Your task to perform on an android device: Go to network settings Image 0: 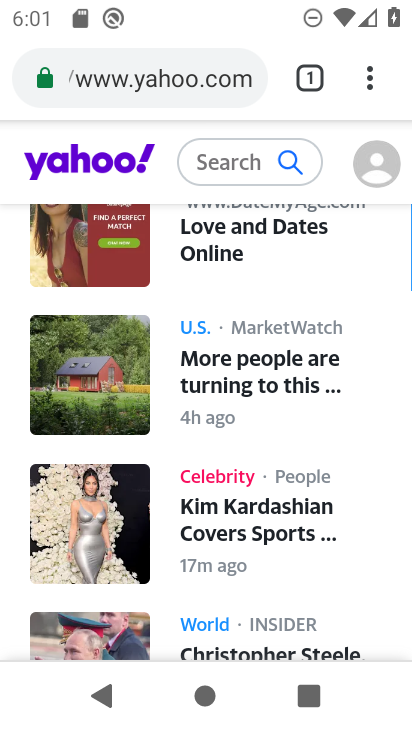
Step 0: press home button
Your task to perform on an android device: Go to network settings Image 1: 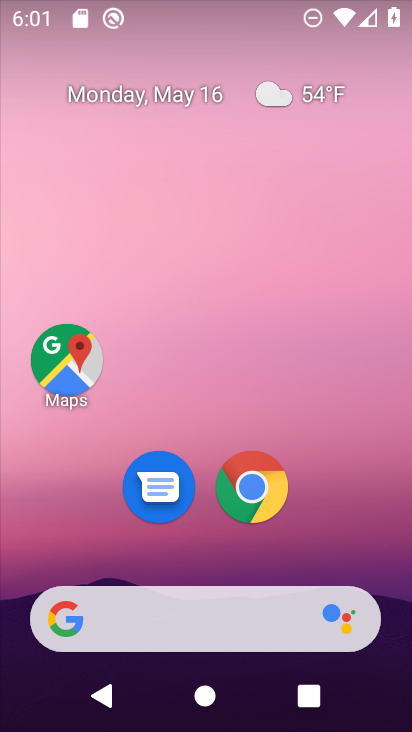
Step 1: drag from (185, 594) to (215, 163)
Your task to perform on an android device: Go to network settings Image 2: 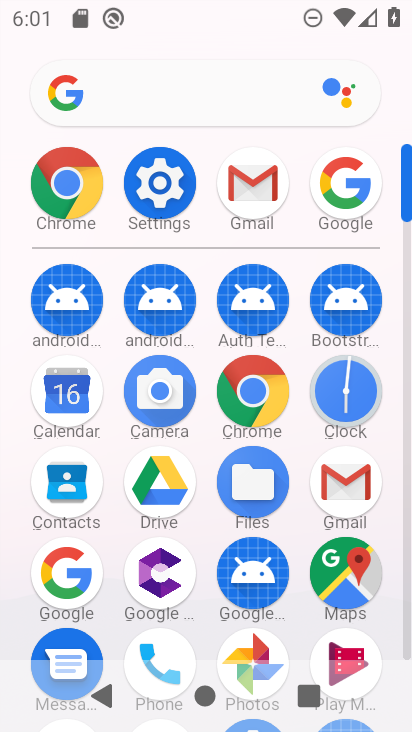
Step 2: click (166, 182)
Your task to perform on an android device: Go to network settings Image 3: 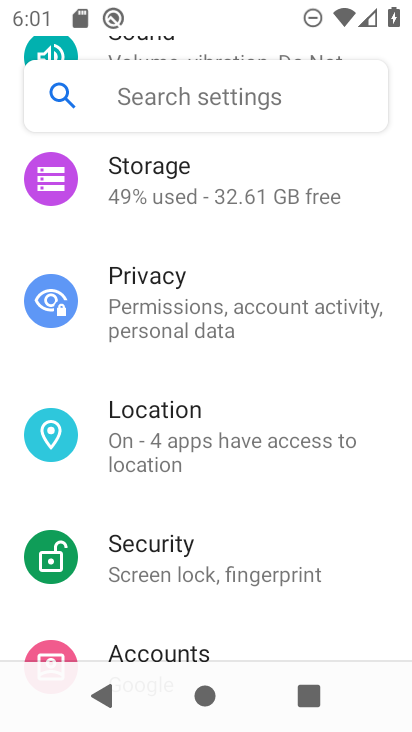
Step 3: drag from (193, 152) to (192, 560)
Your task to perform on an android device: Go to network settings Image 4: 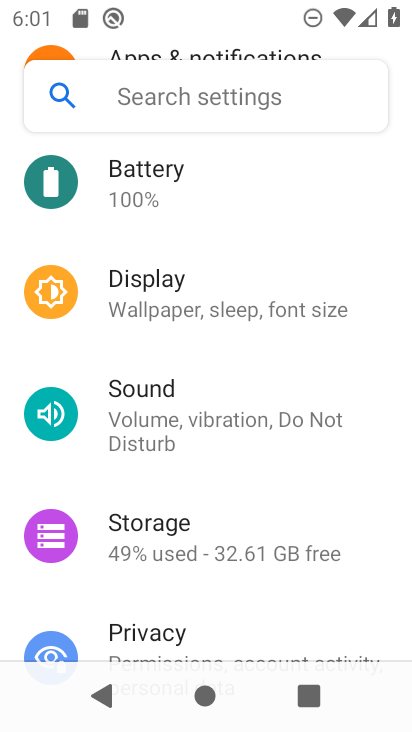
Step 4: drag from (227, 171) to (222, 524)
Your task to perform on an android device: Go to network settings Image 5: 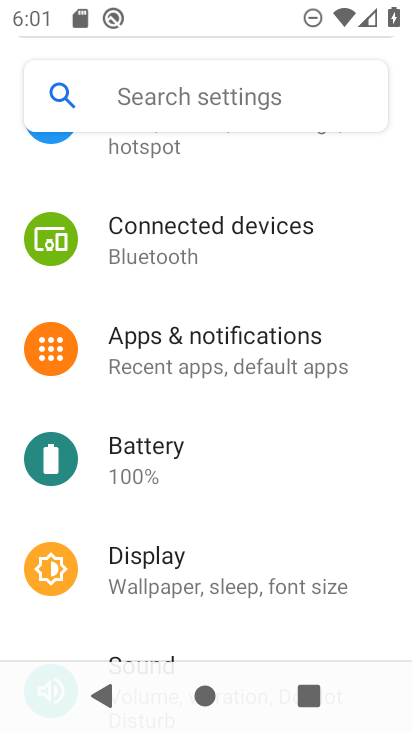
Step 5: drag from (213, 179) to (213, 500)
Your task to perform on an android device: Go to network settings Image 6: 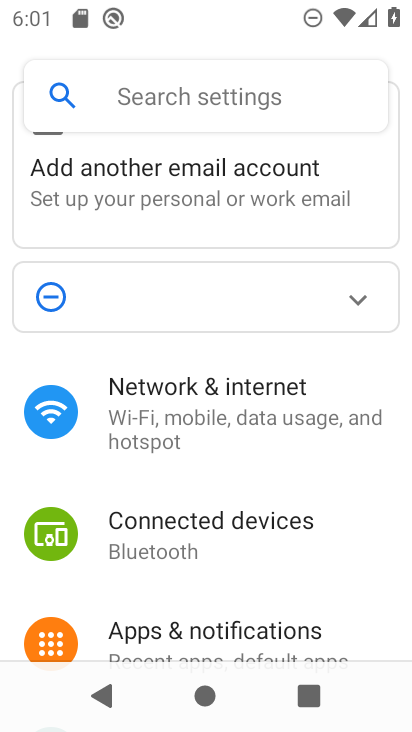
Step 6: click (194, 410)
Your task to perform on an android device: Go to network settings Image 7: 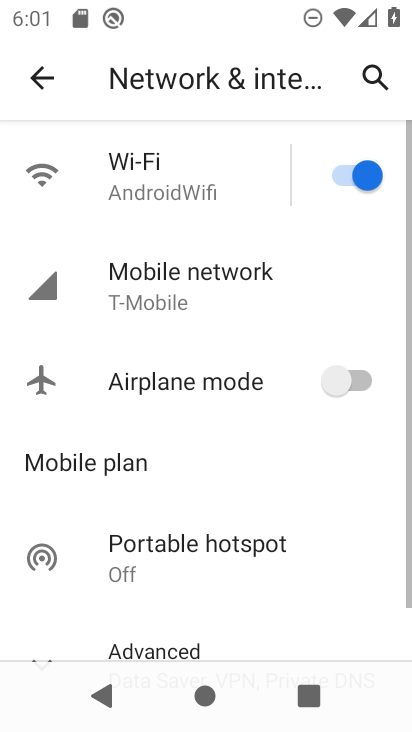
Step 7: drag from (218, 635) to (218, 321)
Your task to perform on an android device: Go to network settings Image 8: 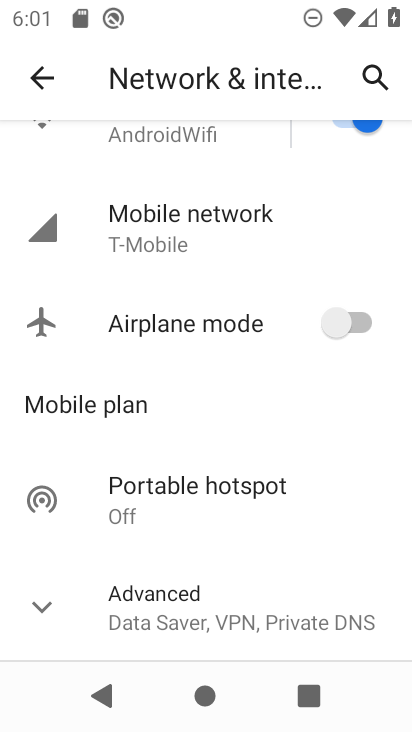
Step 8: drag from (228, 133) to (234, 478)
Your task to perform on an android device: Go to network settings Image 9: 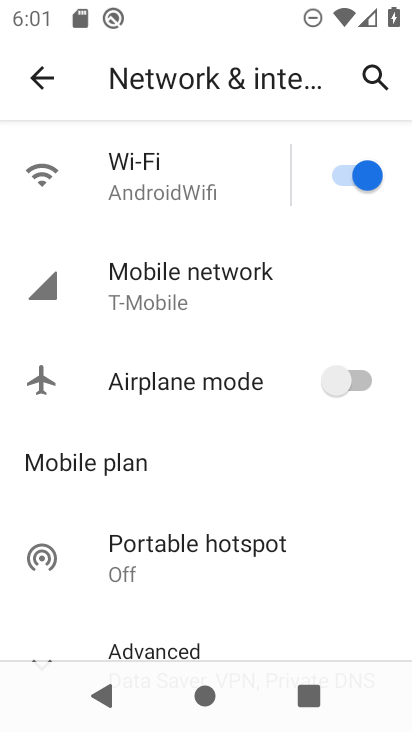
Step 9: click (349, 172)
Your task to perform on an android device: Go to network settings Image 10: 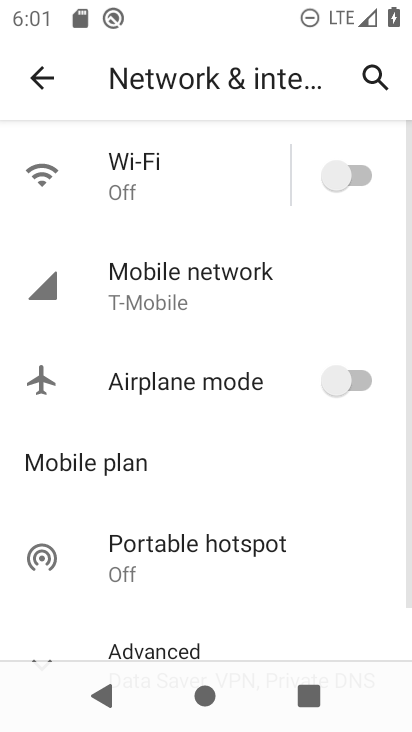
Step 10: click (368, 173)
Your task to perform on an android device: Go to network settings Image 11: 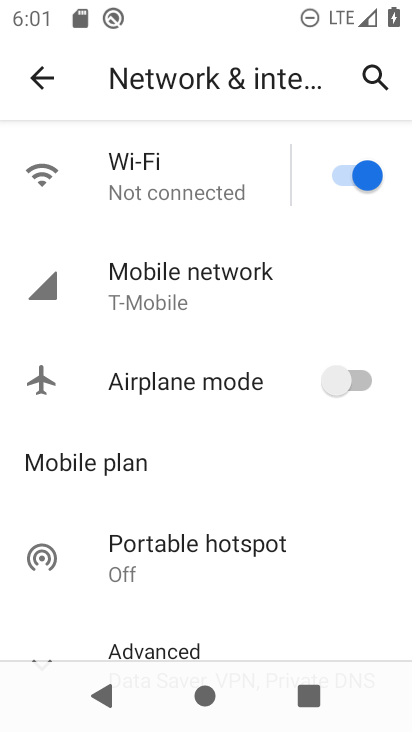
Step 11: click (173, 182)
Your task to perform on an android device: Go to network settings Image 12: 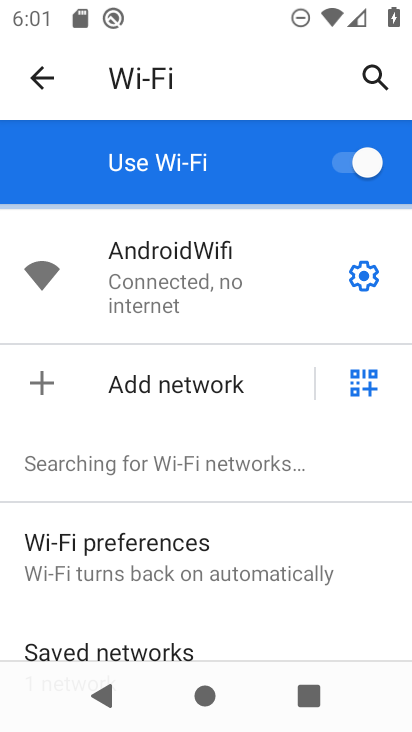
Step 12: click (43, 74)
Your task to perform on an android device: Go to network settings Image 13: 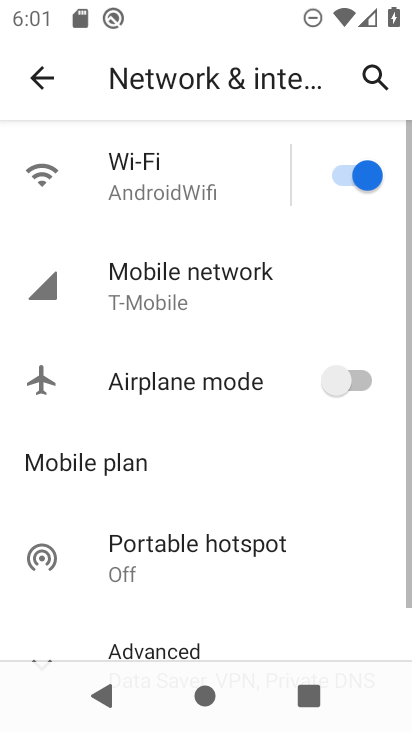
Step 13: click (166, 284)
Your task to perform on an android device: Go to network settings Image 14: 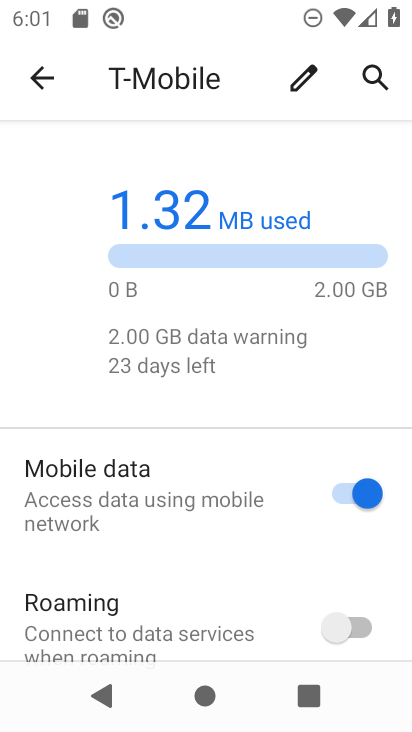
Step 14: drag from (256, 617) to (254, 283)
Your task to perform on an android device: Go to network settings Image 15: 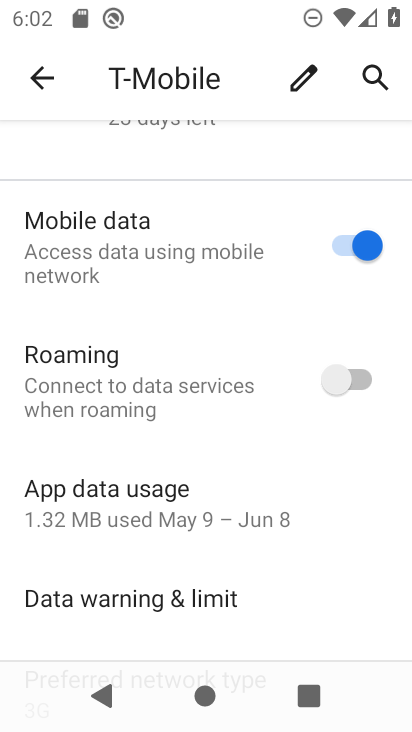
Step 15: drag from (313, 624) to (287, 259)
Your task to perform on an android device: Go to network settings Image 16: 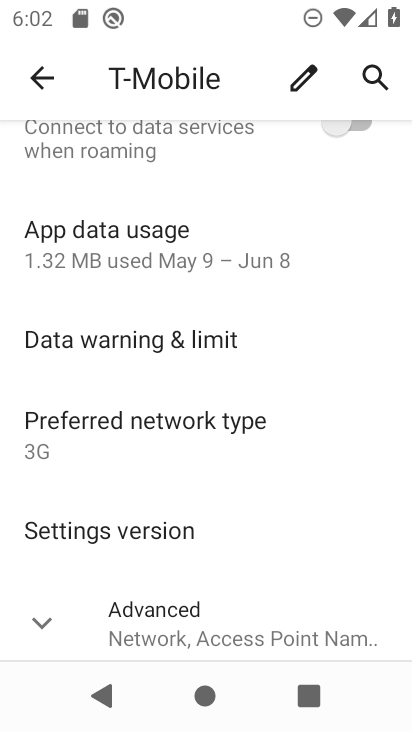
Step 16: click (267, 634)
Your task to perform on an android device: Go to network settings Image 17: 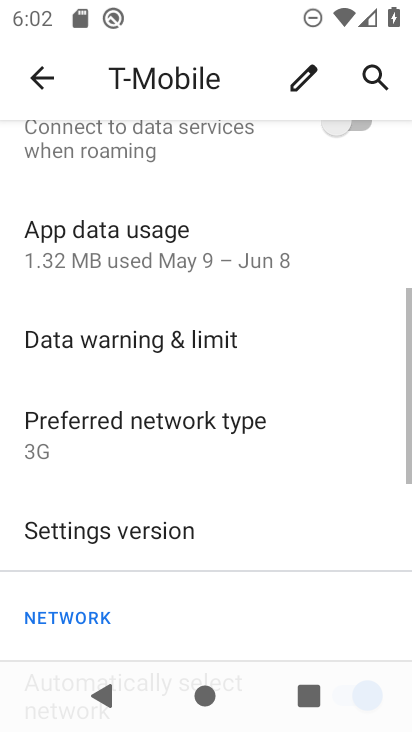
Step 17: task complete